Your task to perform on an android device: Clear the shopping cart on newegg. Add "asus rog" to the cart on newegg Image 0: 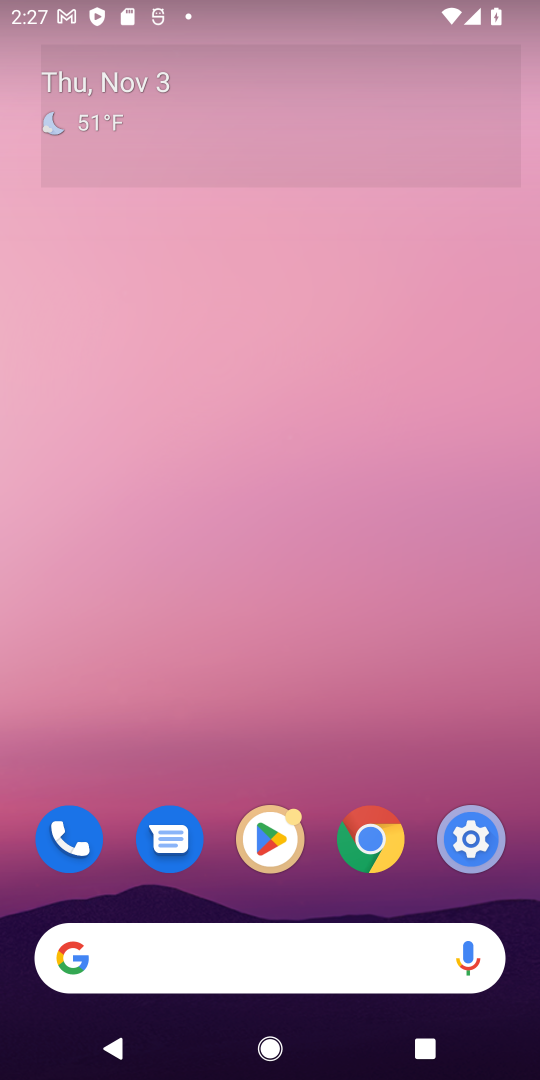
Step 0: click (301, 937)
Your task to perform on an android device: Clear the shopping cart on newegg. Add "asus rog" to the cart on newegg Image 1: 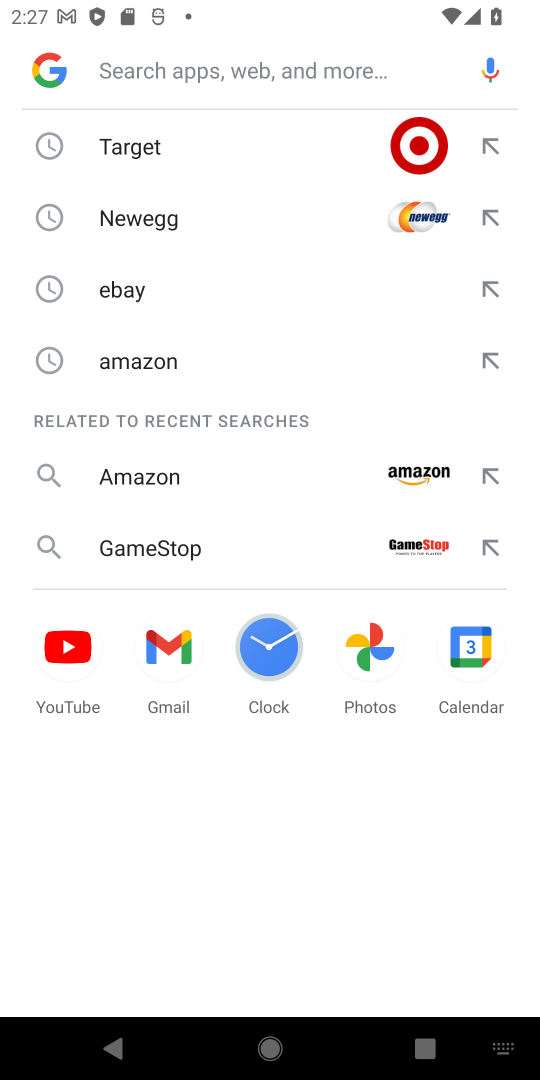
Step 1: click (140, 225)
Your task to perform on an android device: Clear the shopping cart on newegg. Add "asus rog" to the cart on newegg Image 2: 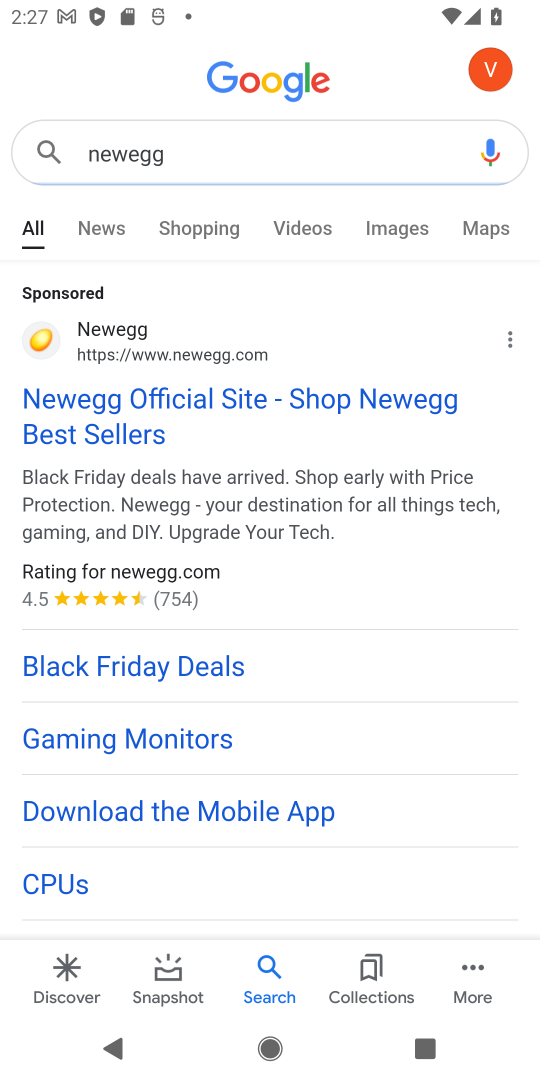
Step 2: click (208, 433)
Your task to perform on an android device: Clear the shopping cart on newegg. Add "asus rog" to the cart on newegg Image 3: 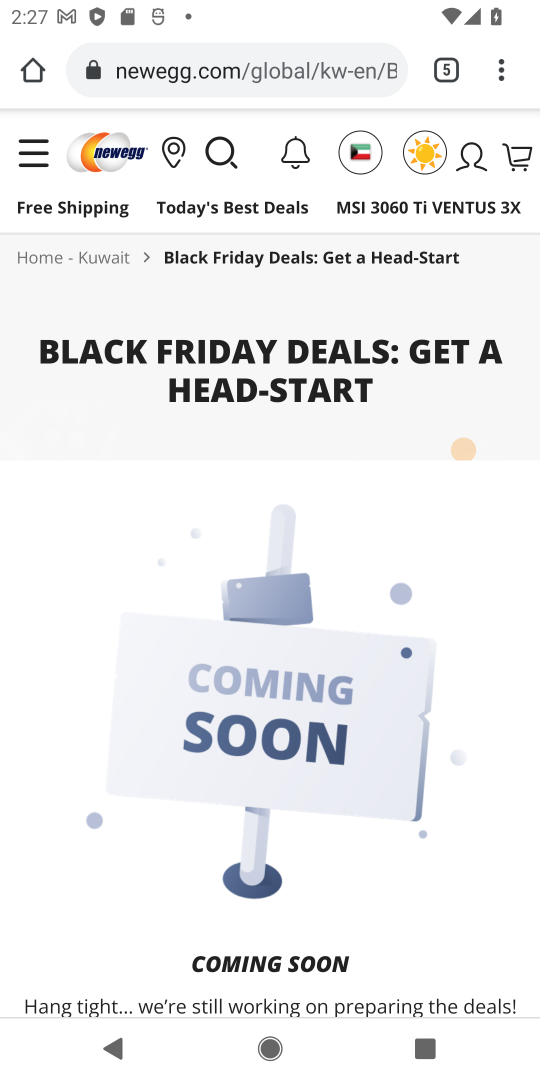
Step 3: click (235, 157)
Your task to perform on an android device: Clear the shopping cart on newegg. Add "asus rog" to the cart on newegg Image 4: 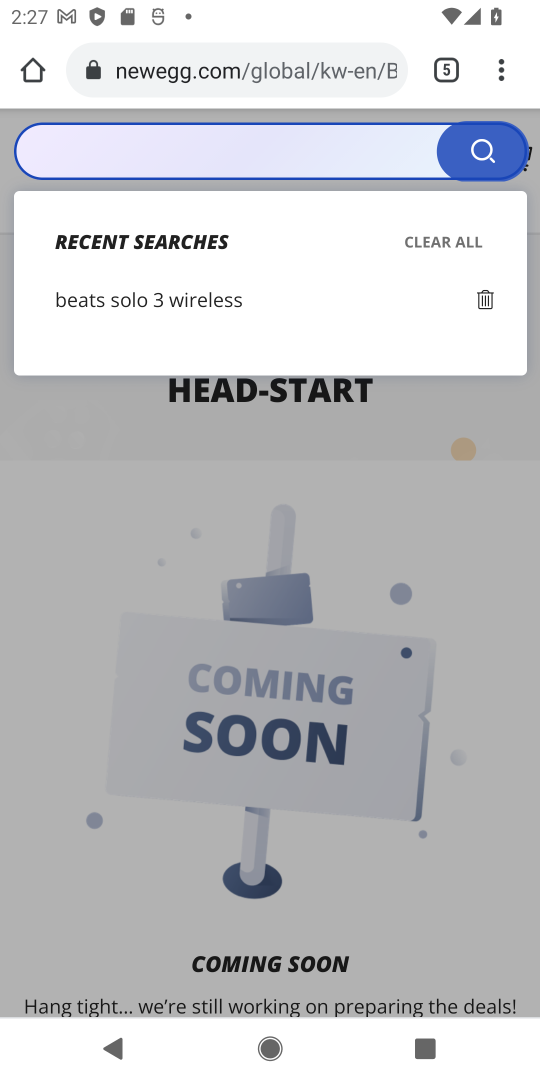
Step 4: click (273, 163)
Your task to perform on an android device: Clear the shopping cart on newegg. Add "asus rog" to the cart on newegg Image 5: 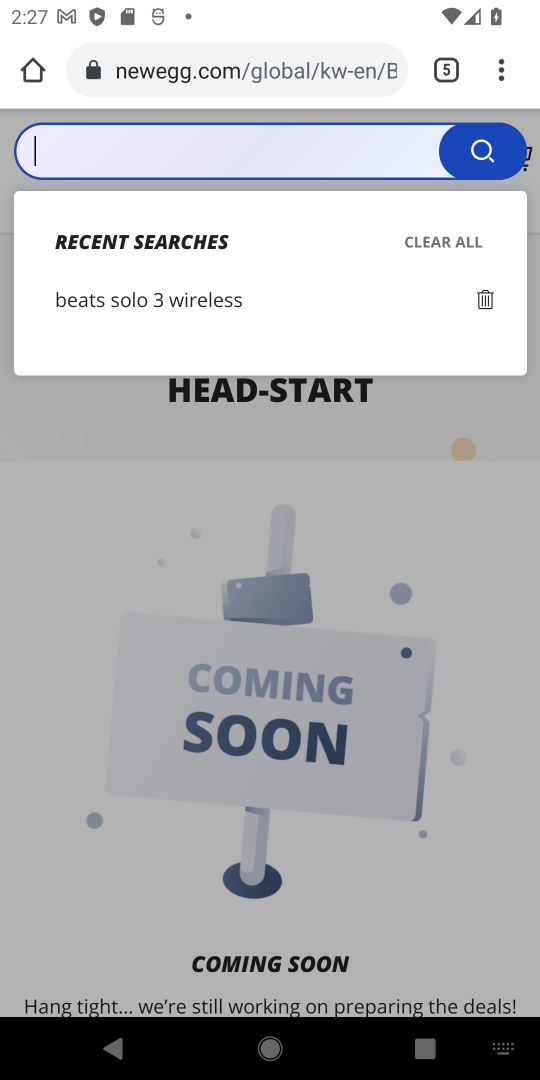
Step 5: type "asus rog"
Your task to perform on an android device: Clear the shopping cart on newegg. Add "asus rog" to the cart on newegg Image 6: 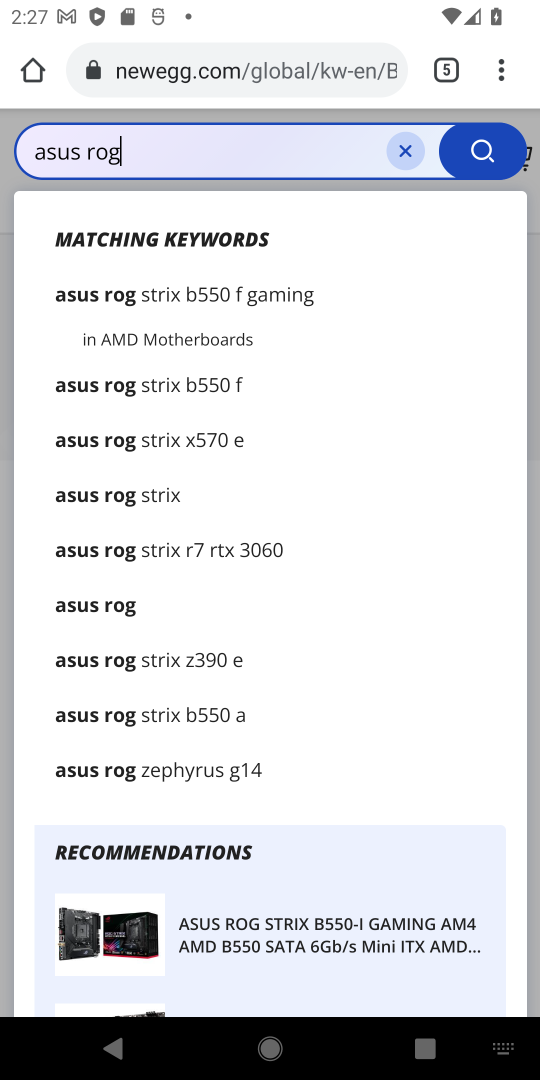
Step 6: click (491, 154)
Your task to perform on an android device: Clear the shopping cart on newegg. Add "asus rog" to the cart on newegg Image 7: 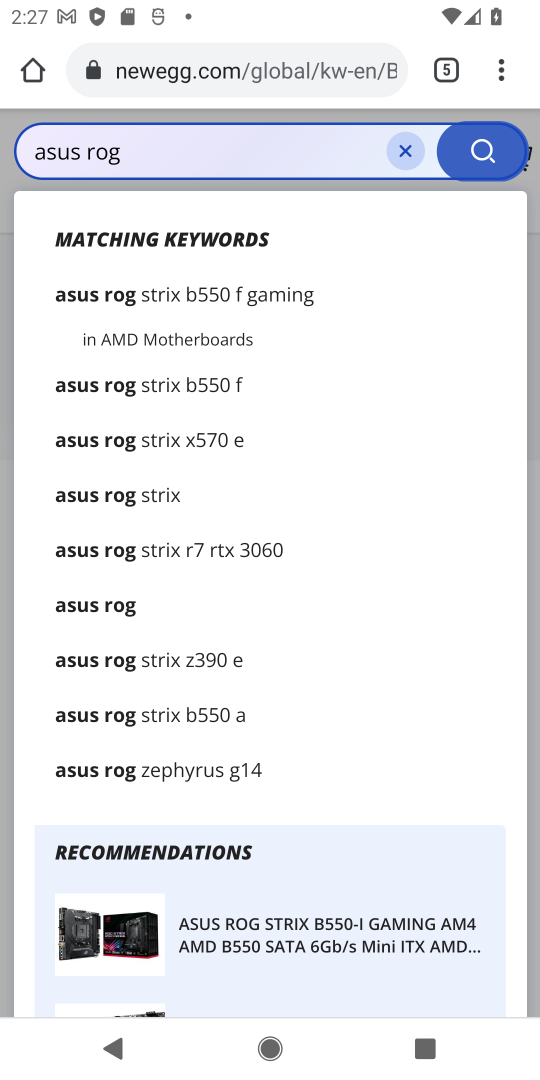
Step 7: click (462, 150)
Your task to perform on an android device: Clear the shopping cart on newegg. Add "asus rog" to the cart on newegg Image 8: 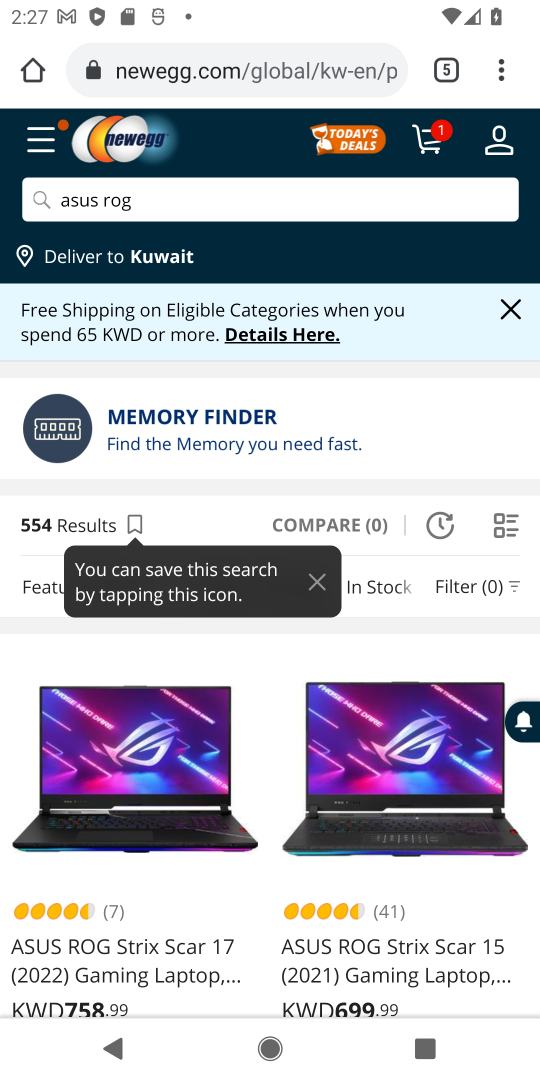
Step 8: click (155, 872)
Your task to perform on an android device: Clear the shopping cart on newegg. Add "asus rog" to the cart on newegg Image 9: 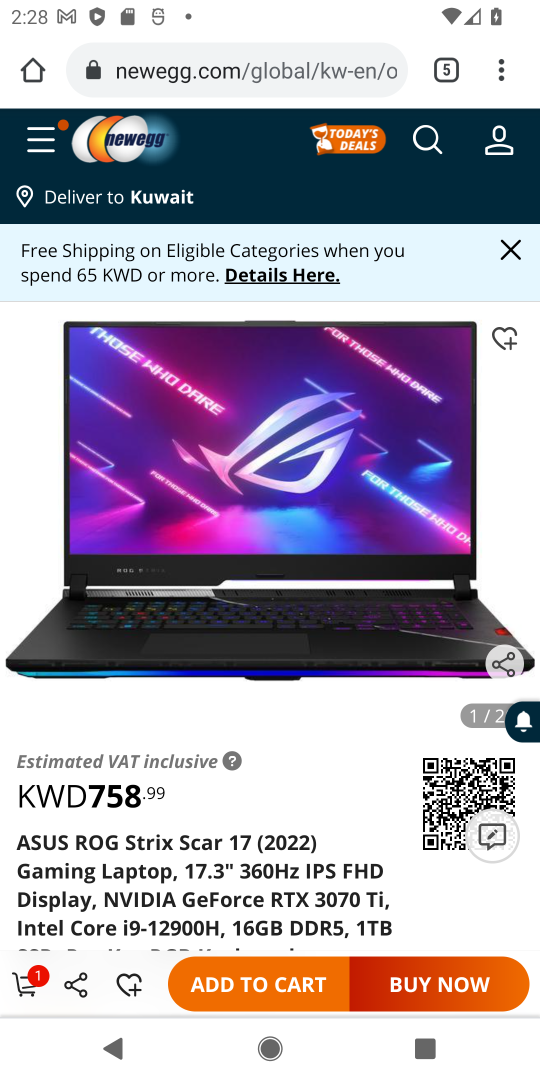
Step 9: click (187, 983)
Your task to perform on an android device: Clear the shopping cart on newegg. Add "asus rog" to the cart on newegg Image 10: 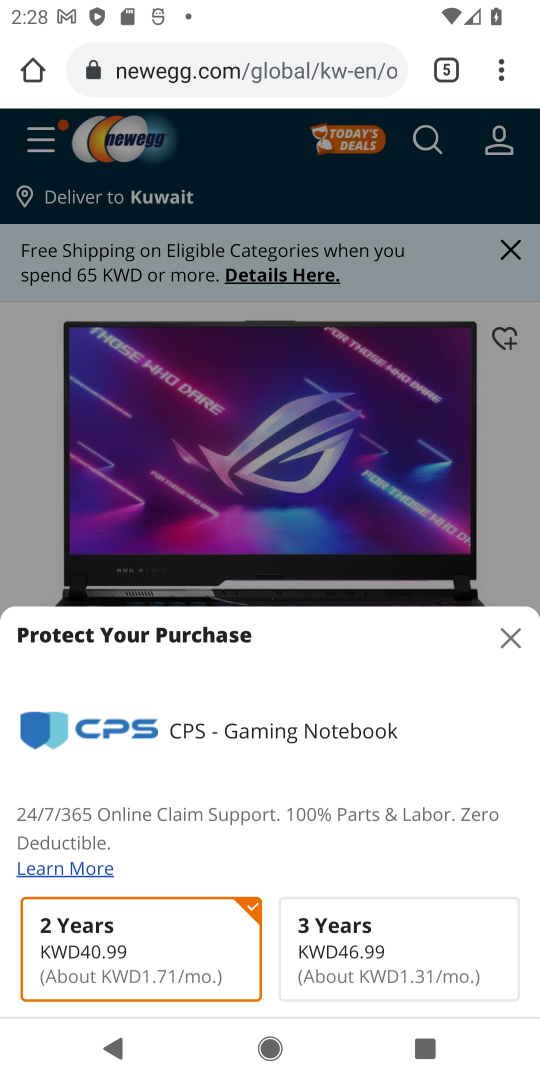
Step 10: task complete